Your task to perform on an android device: Open network settings Image 0: 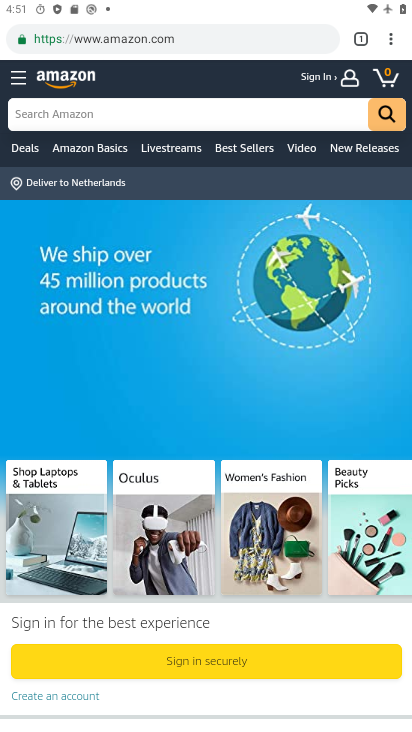
Step 0: press home button
Your task to perform on an android device: Open network settings Image 1: 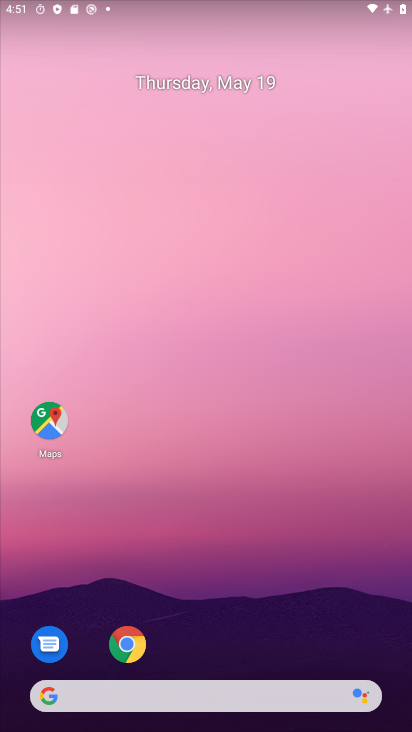
Step 1: drag from (165, 635) to (189, 167)
Your task to perform on an android device: Open network settings Image 2: 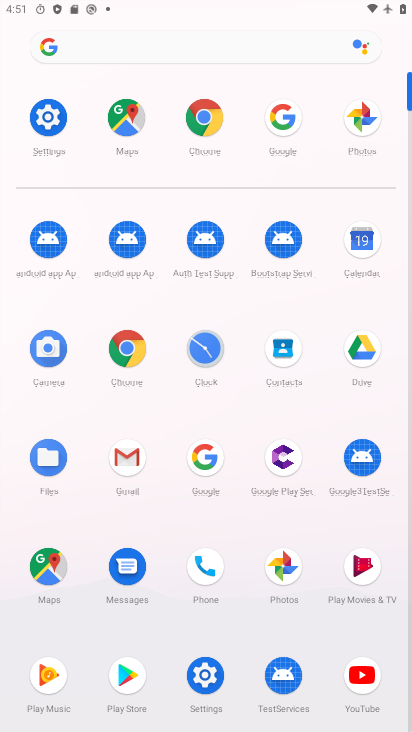
Step 2: click (42, 123)
Your task to perform on an android device: Open network settings Image 3: 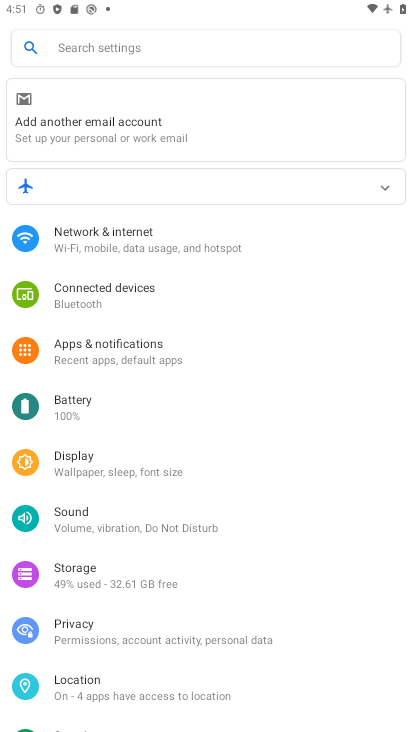
Step 3: click (126, 242)
Your task to perform on an android device: Open network settings Image 4: 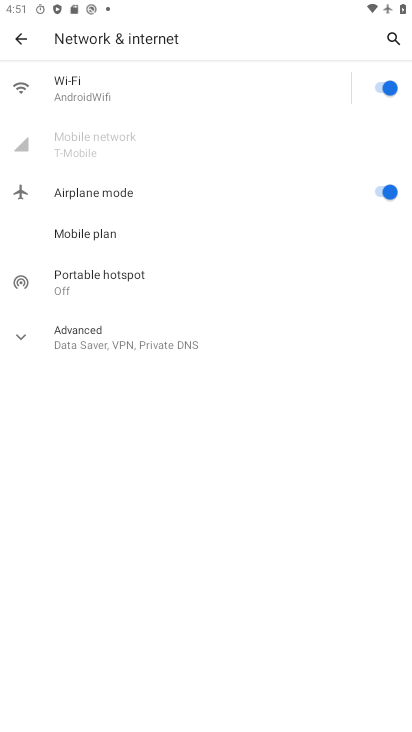
Step 4: click (85, 336)
Your task to perform on an android device: Open network settings Image 5: 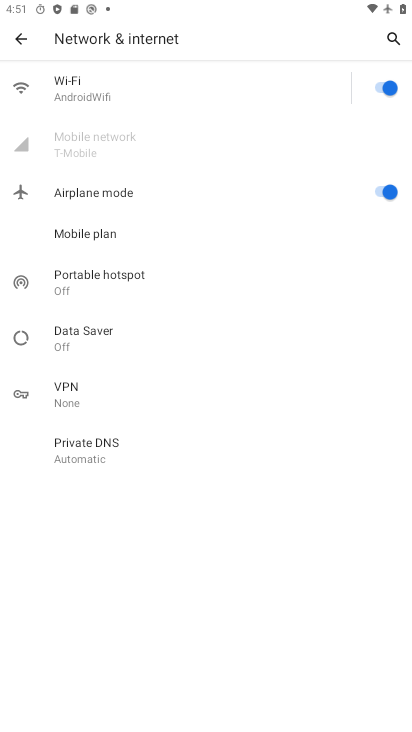
Step 5: task complete